Your task to perform on an android device: toggle priority inbox in the gmail app Image 0: 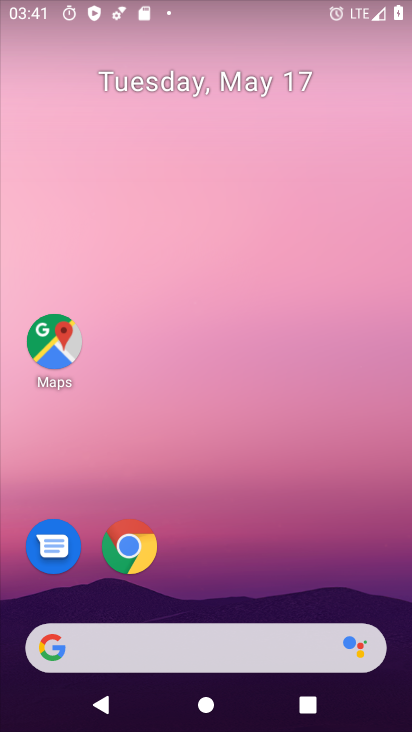
Step 0: press home button
Your task to perform on an android device: toggle priority inbox in the gmail app Image 1: 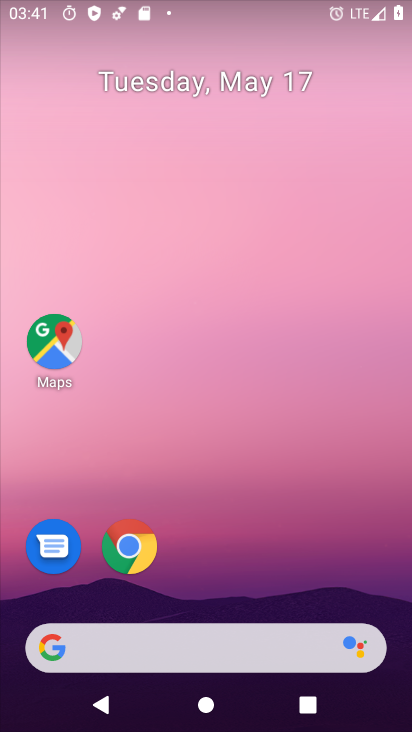
Step 1: drag from (337, 549) to (326, 430)
Your task to perform on an android device: toggle priority inbox in the gmail app Image 2: 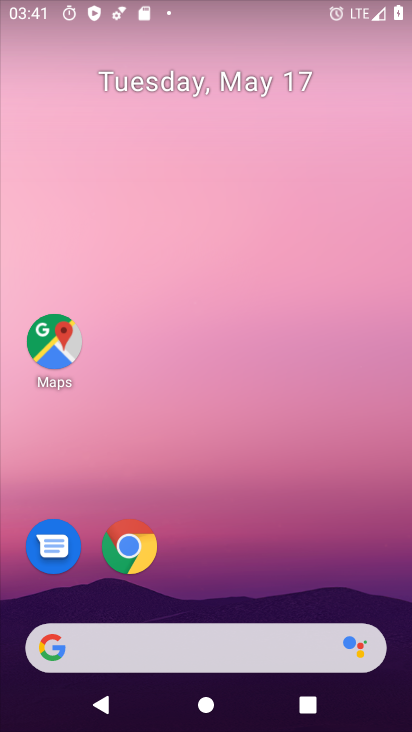
Step 2: drag from (269, 508) to (268, 12)
Your task to perform on an android device: toggle priority inbox in the gmail app Image 3: 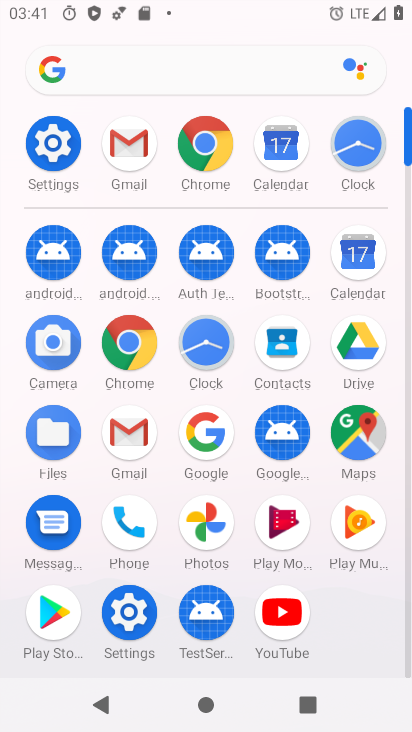
Step 3: click (125, 146)
Your task to perform on an android device: toggle priority inbox in the gmail app Image 4: 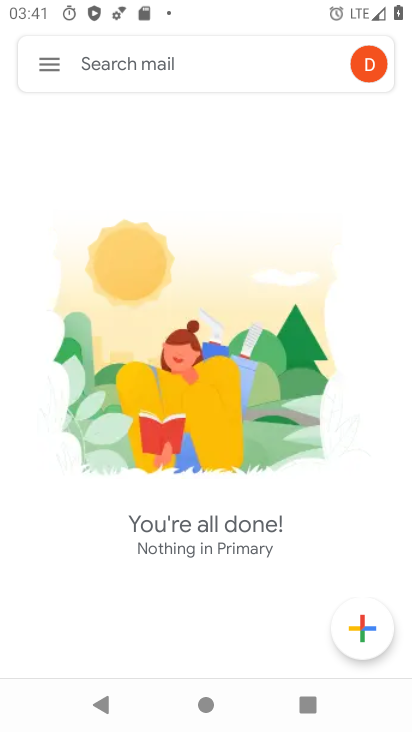
Step 4: click (60, 71)
Your task to perform on an android device: toggle priority inbox in the gmail app Image 5: 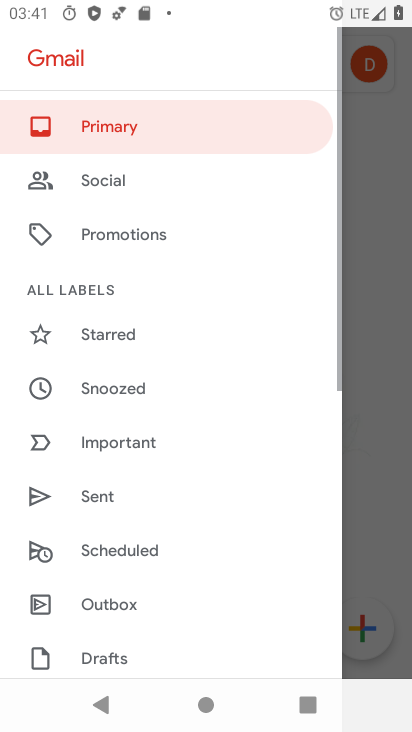
Step 5: drag from (111, 564) to (104, 146)
Your task to perform on an android device: toggle priority inbox in the gmail app Image 6: 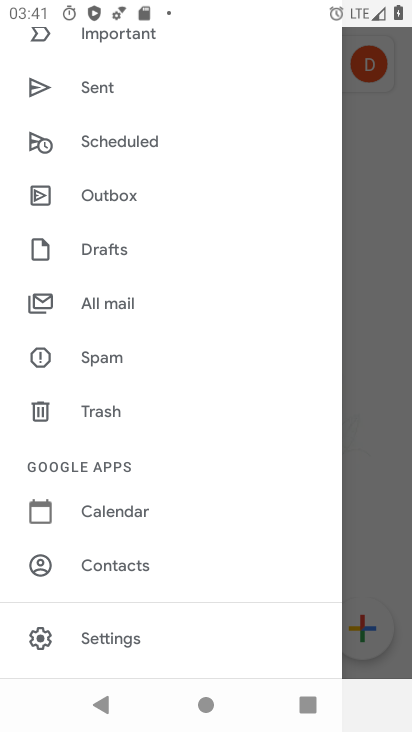
Step 6: click (154, 637)
Your task to perform on an android device: toggle priority inbox in the gmail app Image 7: 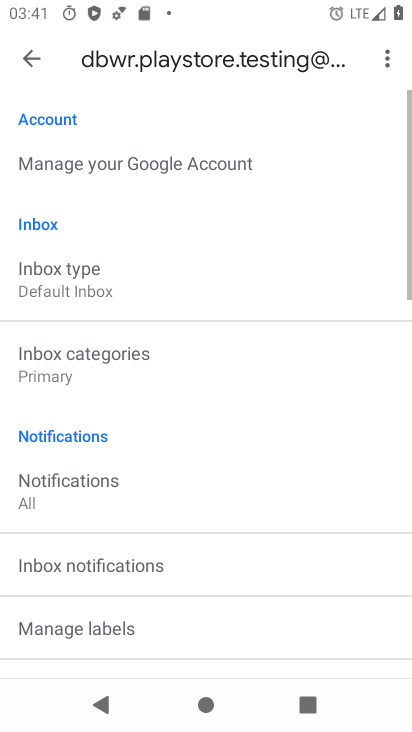
Step 7: drag from (135, 163) to (79, 397)
Your task to perform on an android device: toggle priority inbox in the gmail app Image 8: 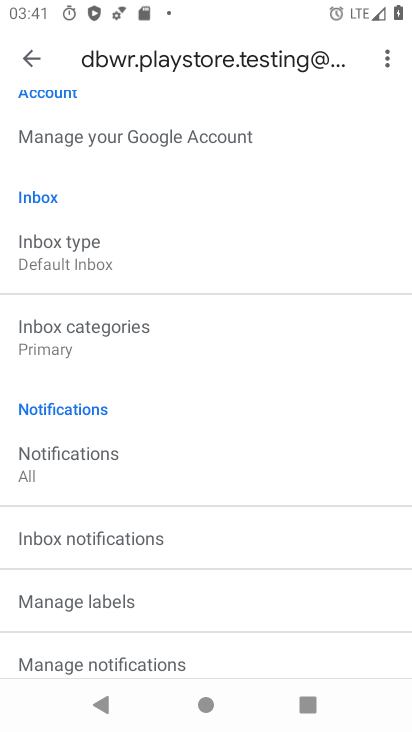
Step 8: click (83, 238)
Your task to perform on an android device: toggle priority inbox in the gmail app Image 9: 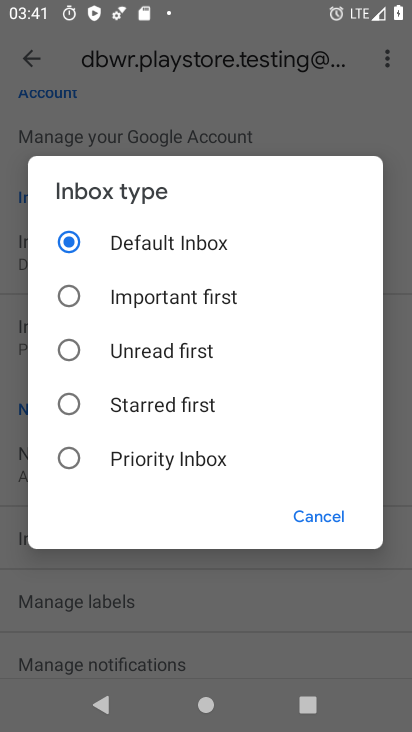
Step 9: click (86, 462)
Your task to perform on an android device: toggle priority inbox in the gmail app Image 10: 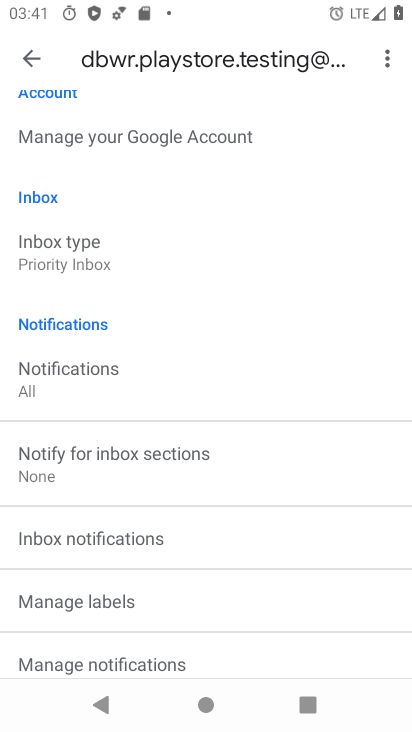
Step 10: task complete